Your task to perform on an android device: Go to privacy settings Image 0: 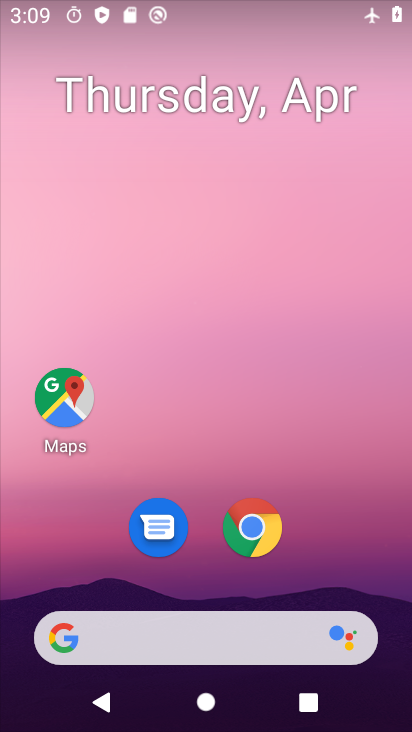
Step 0: drag from (337, 551) to (314, 197)
Your task to perform on an android device: Go to privacy settings Image 1: 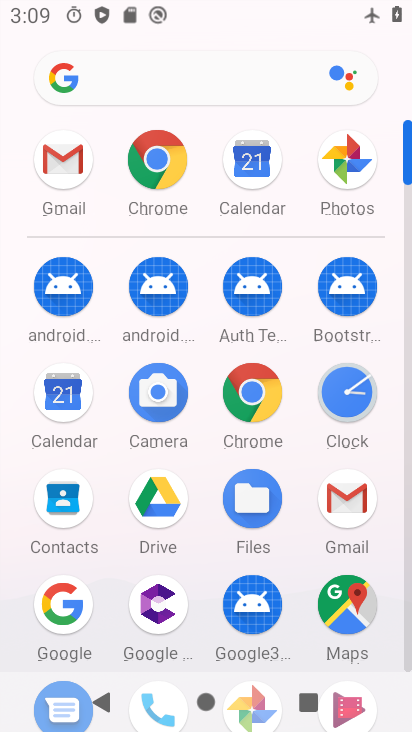
Step 1: drag from (291, 529) to (318, 296)
Your task to perform on an android device: Go to privacy settings Image 2: 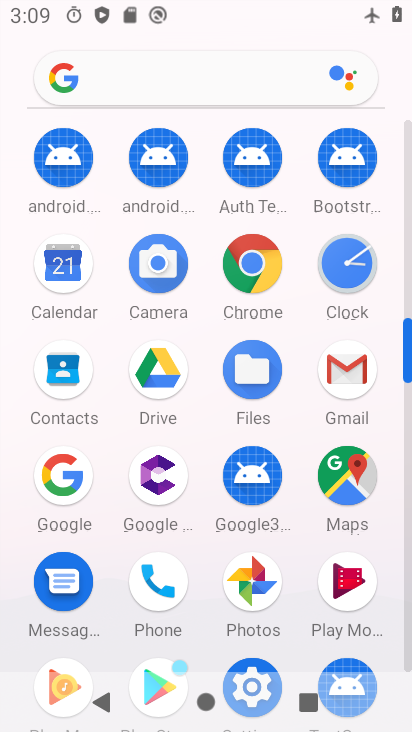
Step 2: drag from (316, 592) to (315, 363)
Your task to perform on an android device: Go to privacy settings Image 3: 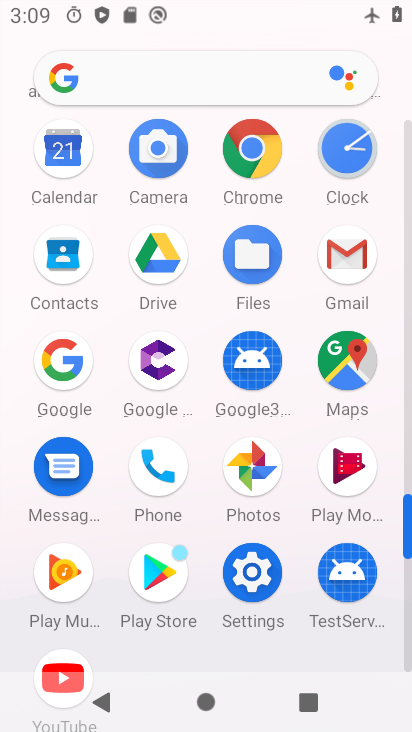
Step 3: click (257, 593)
Your task to perform on an android device: Go to privacy settings Image 4: 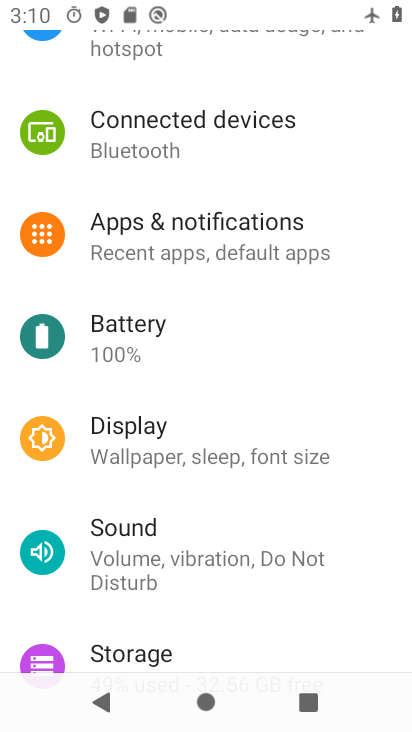
Step 4: drag from (226, 549) to (227, 187)
Your task to perform on an android device: Go to privacy settings Image 5: 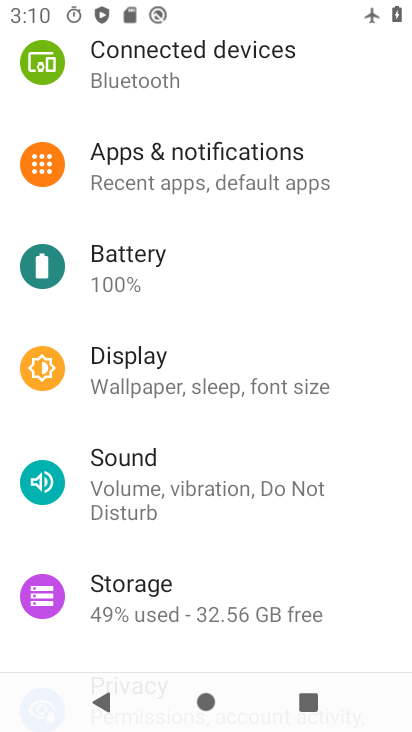
Step 5: drag from (186, 510) to (223, 201)
Your task to perform on an android device: Go to privacy settings Image 6: 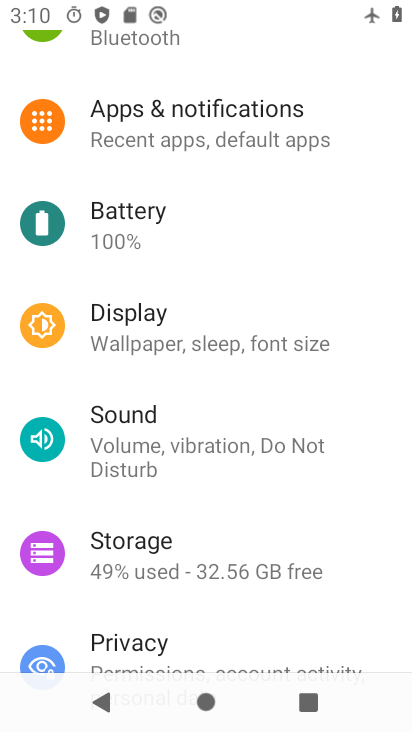
Step 6: drag from (189, 546) to (207, 247)
Your task to perform on an android device: Go to privacy settings Image 7: 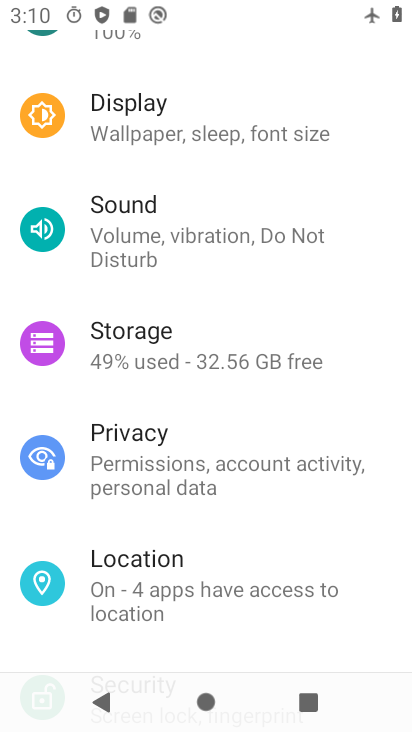
Step 7: click (163, 460)
Your task to perform on an android device: Go to privacy settings Image 8: 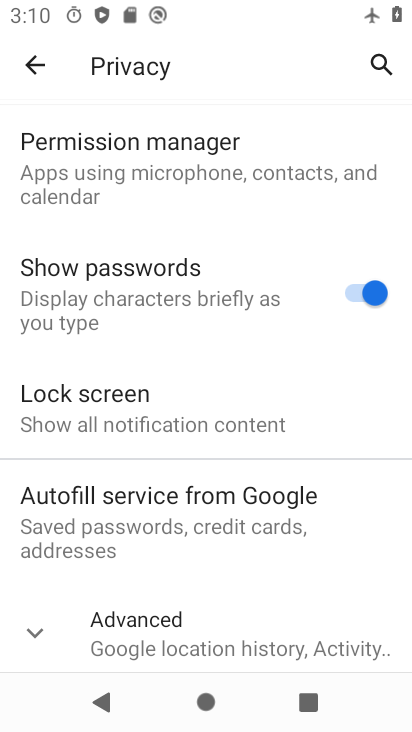
Step 8: task complete